Your task to perform on an android device: turn notification dots on Image 0: 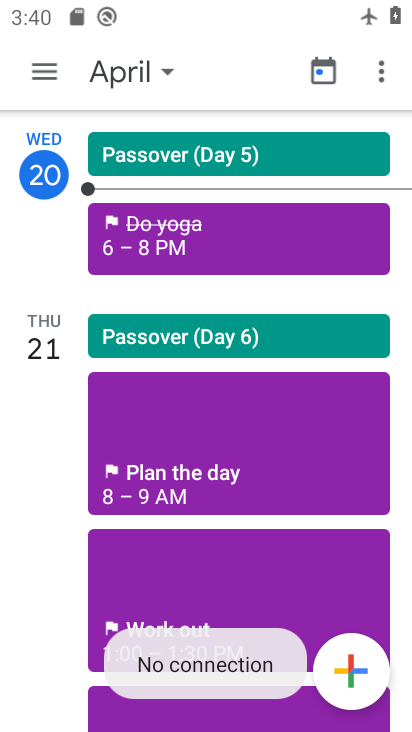
Step 0: drag from (288, 610) to (287, 437)
Your task to perform on an android device: turn notification dots on Image 1: 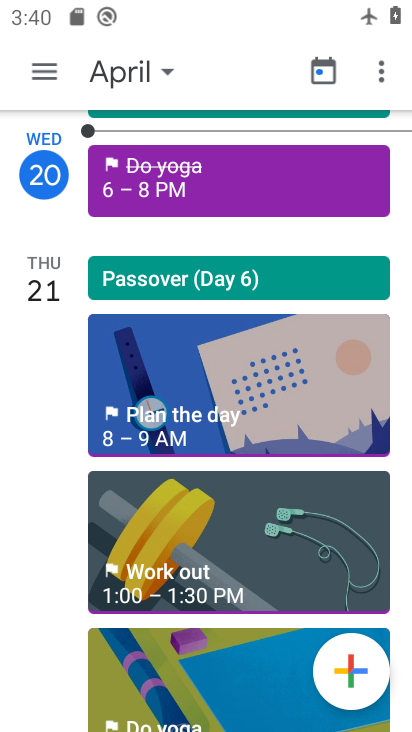
Step 1: press home button
Your task to perform on an android device: turn notification dots on Image 2: 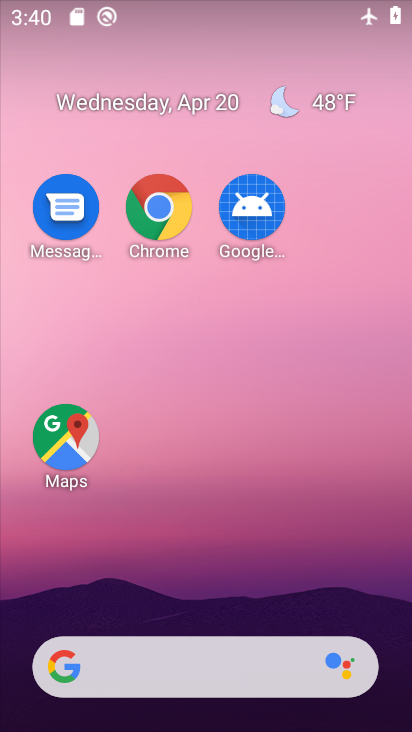
Step 2: drag from (272, 550) to (318, 60)
Your task to perform on an android device: turn notification dots on Image 3: 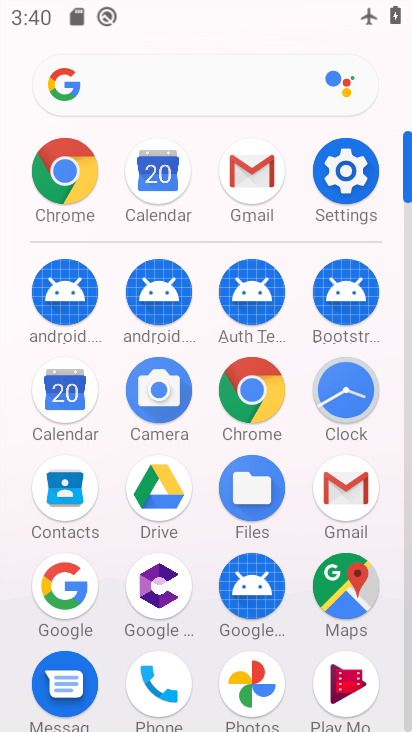
Step 3: click (339, 165)
Your task to perform on an android device: turn notification dots on Image 4: 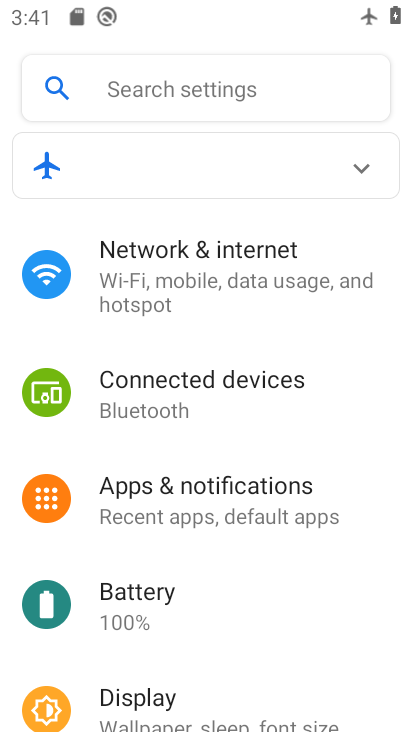
Step 4: drag from (245, 472) to (285, 180)
Your task to perform on an android device: turn notification dots on Image 5: 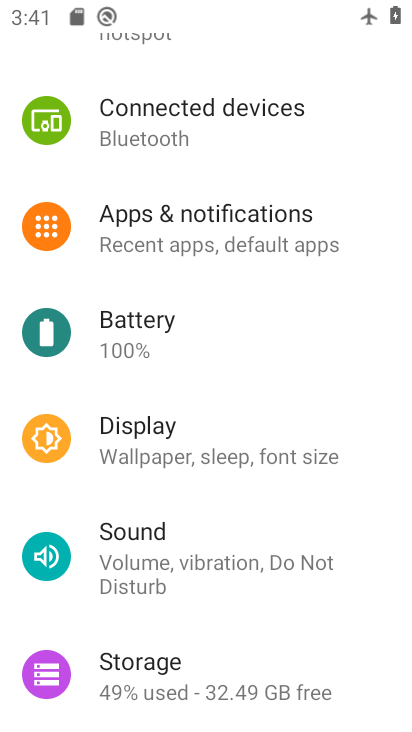
Step 5: click (239, 228)
Your task to perform on an android device: turn notification dots on Image 6: 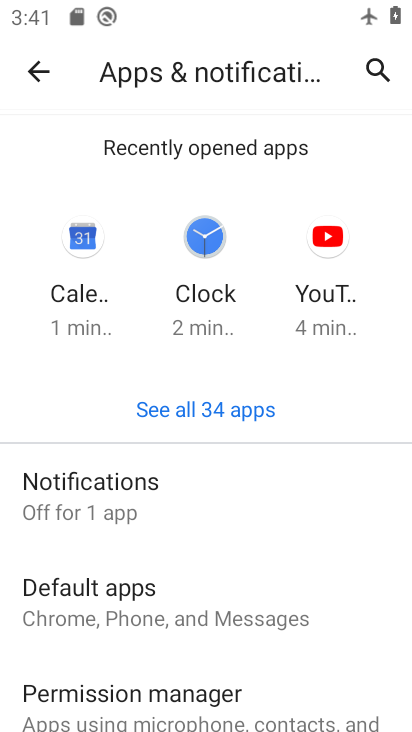
Step 6: click (165, 444)
Your task to perform on an android device: turn notification dots on Image 7: 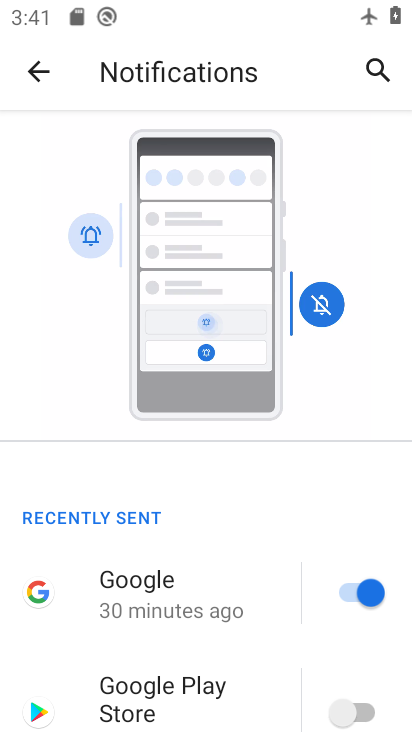
Step 7: drag from (150, 632) to (203, 147)
Your task to perform on an android device: turn notification dots on Image 8: 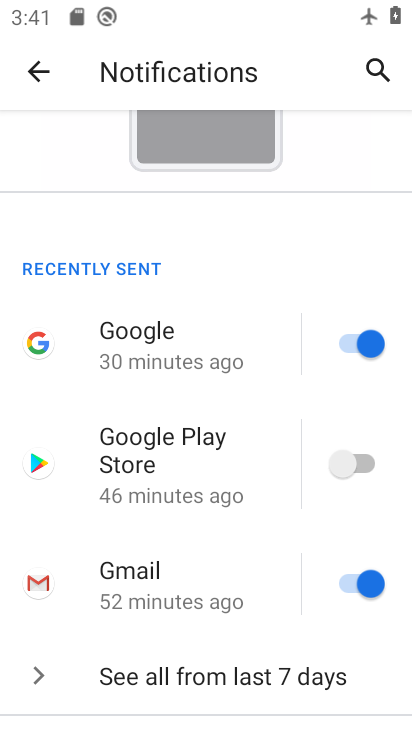
Step 8: drag from (134, 461) to (81, 4)
Your task to perform on an android device: turn notification dots on Image 9: 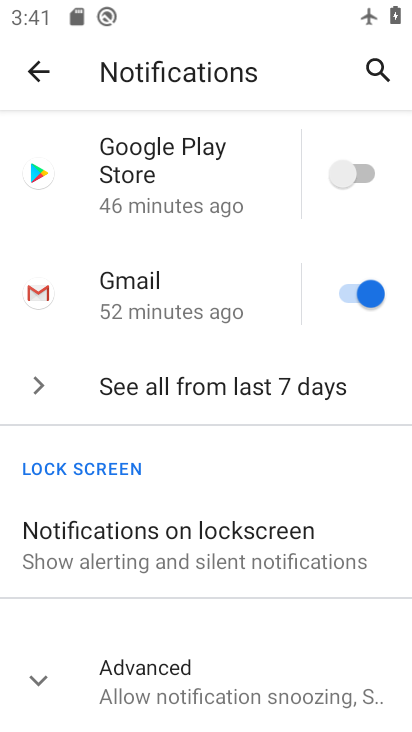
Step 9: drag from (116, 464) to (145, 330)
Your task to perform on an android device: turn notification dots on Image 10: 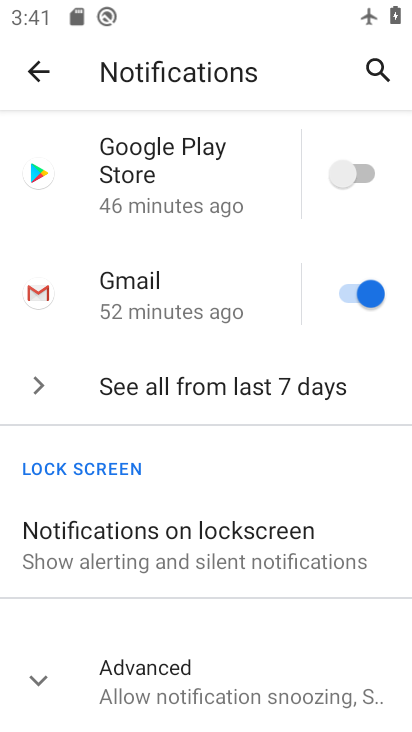
Step 10: click (155, 664)
Your task to perform on an android device: turn notification dots on Image 11: 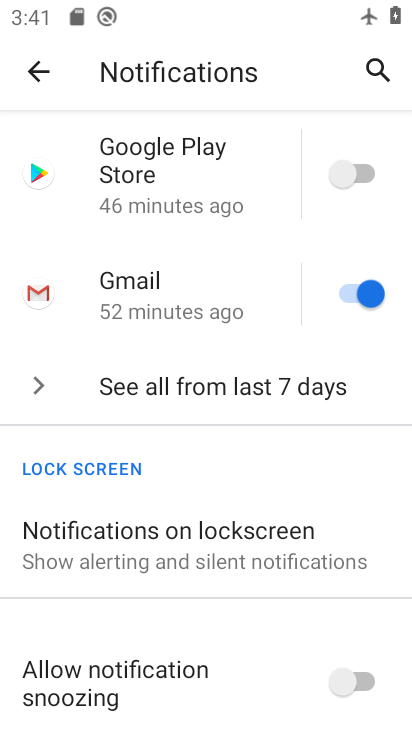
Step 11: drag from (155, 664) to (178, 268)
Your task to perform on an android device: turn notification dots on Image 12: 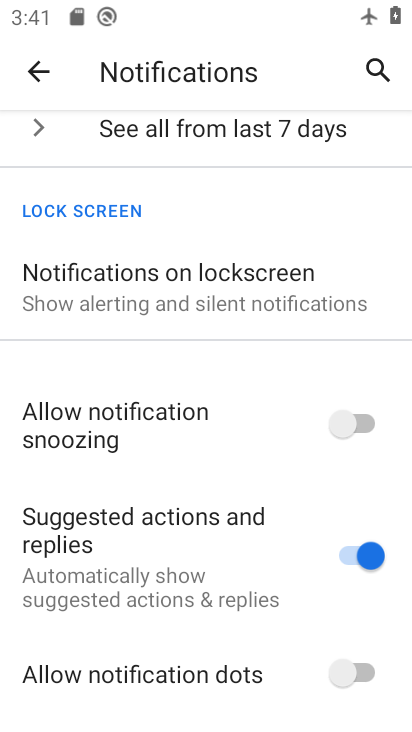
Step 12: drag from (178, 645) to (188, 534)
Your task to perform on an android device: turn notification dots on Image 13: 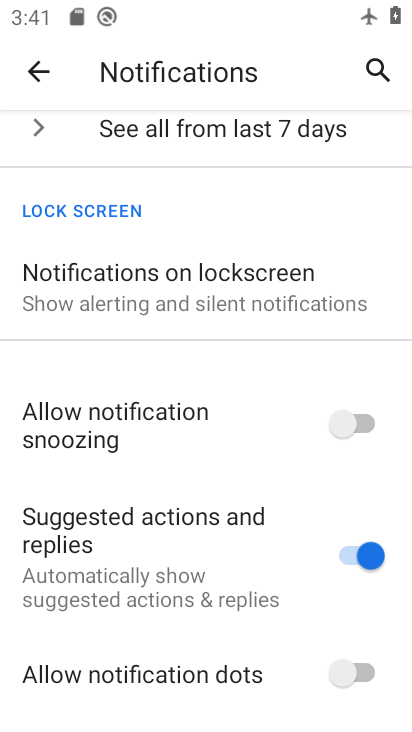
Step 13: click (207, 690)
Your task to perform on an android device: turn notification dots on Image 14: 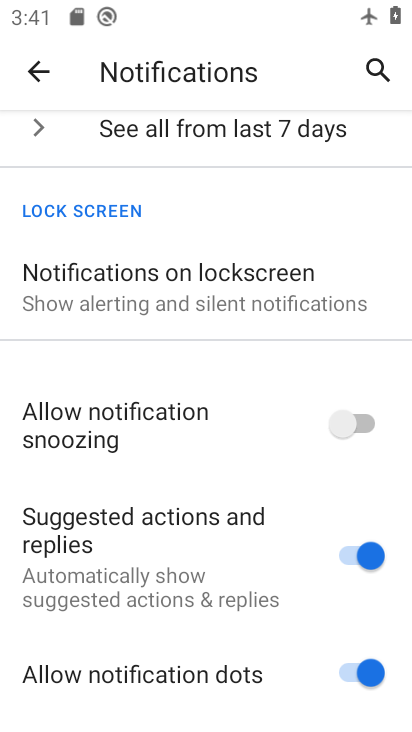
Step 14: task complete